Your task to perform on an android device: open wifi settings Image 0: 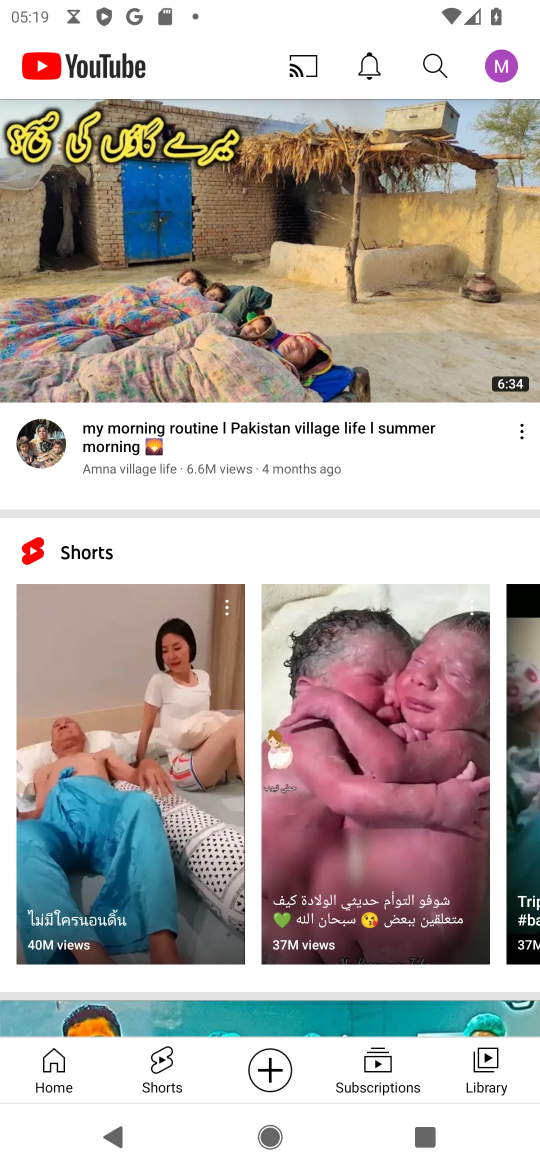
Step 0: press home button
Your task to perform on an android device: open wifi settings Image 1: 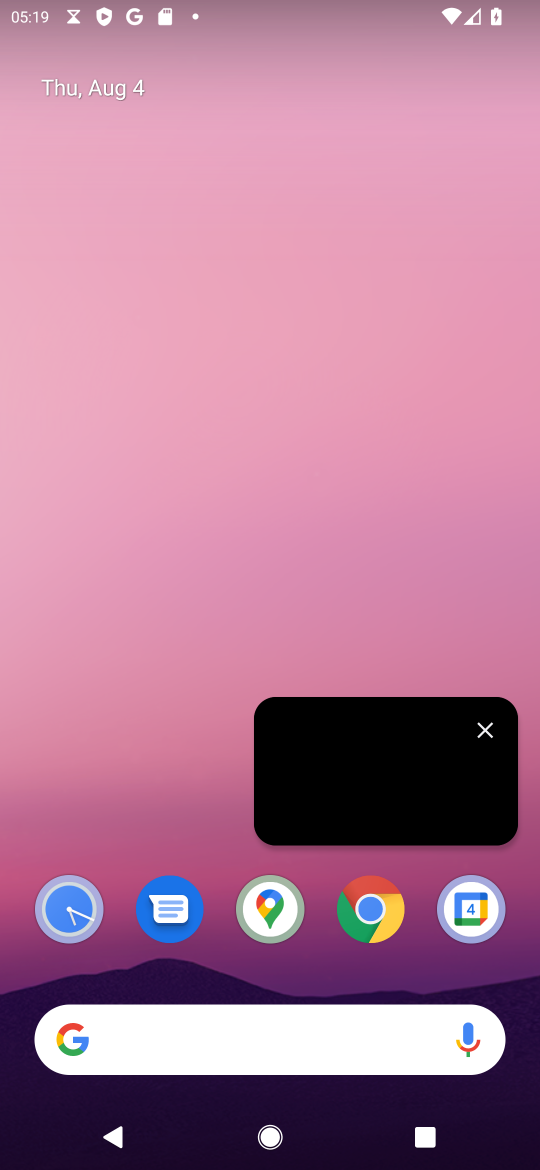
Step 1: click (484, 731)
Your task to perform on an android device: open wifi settings Image 2: 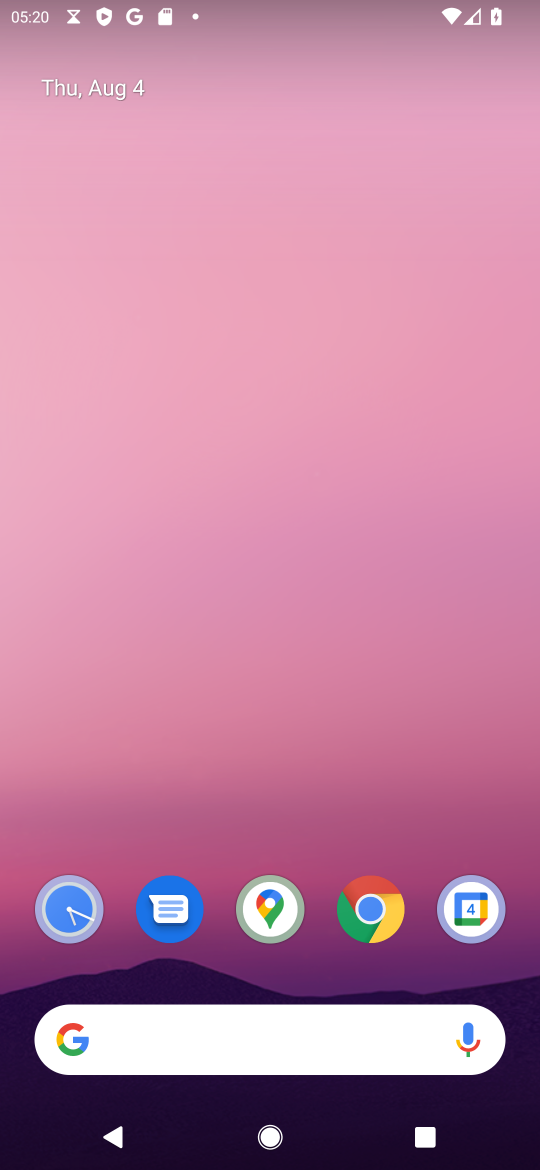
Step 2: drag from (206, 1052) to (494, 173)
Your task to perform on an android device: open wifi settings Image 3: 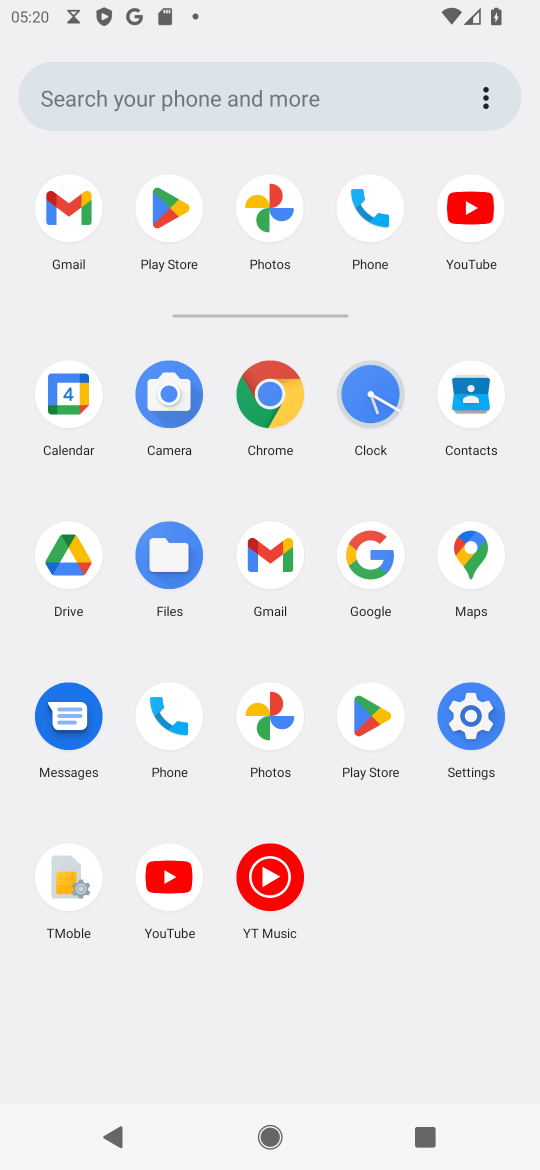
Step 3: click (467, 717)
Your task to perform on an android device: open wifi settings Image 4: 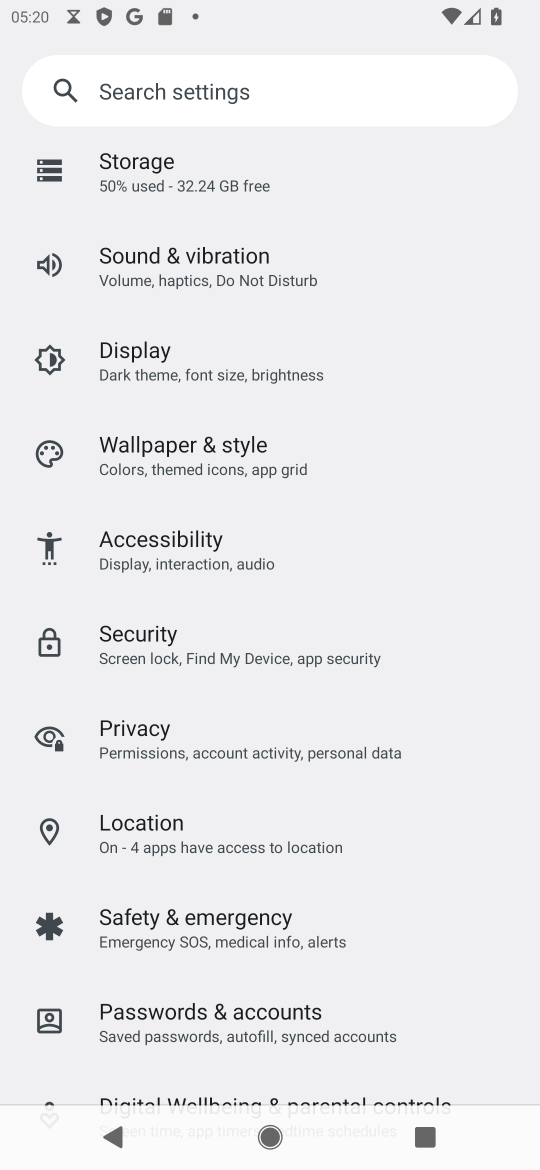
Step 4: drag from (399, 217) to (329, 941)
Your task to perform on an android device: open wifi settings Image 5: 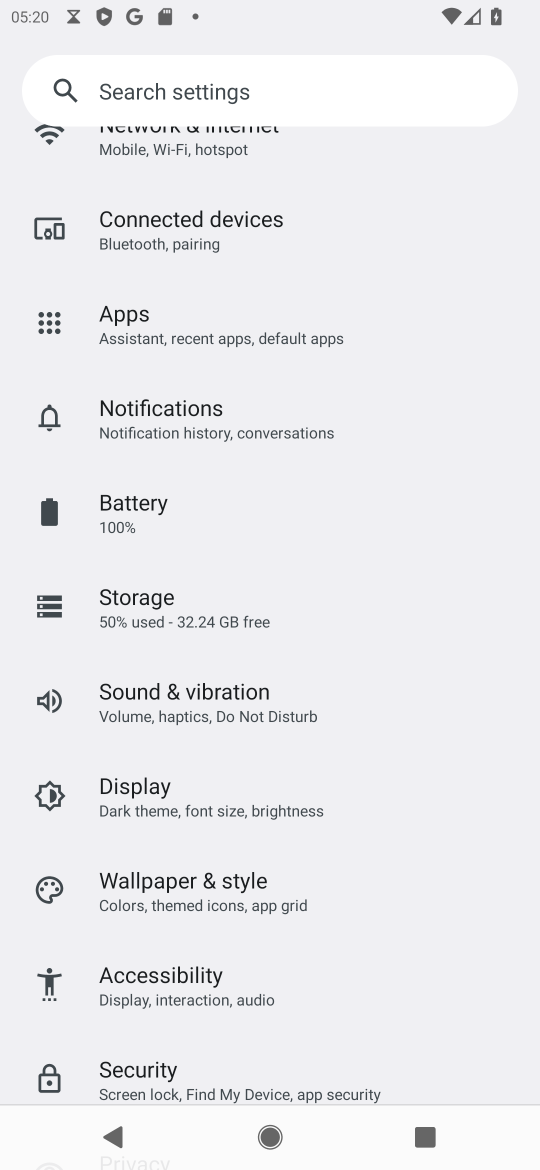
Step 5: drag from (443, 196) to (336, 1029)
Your task to perform on an android device: open wifi settings Image 6: 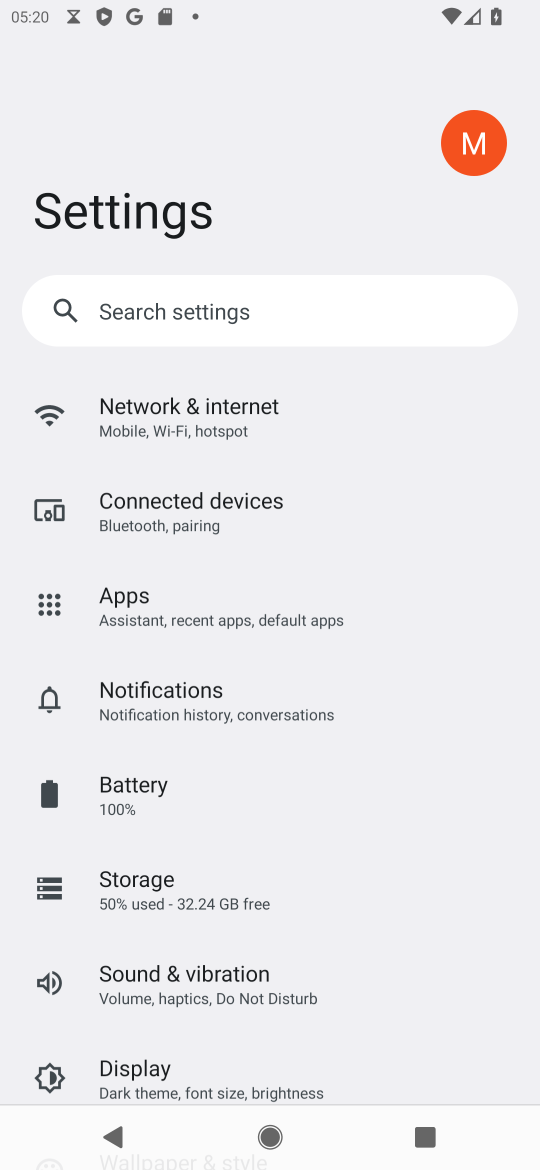
Step 6: click (213, 414)
Your task to perform on an android device: open wifi settings Image 7: 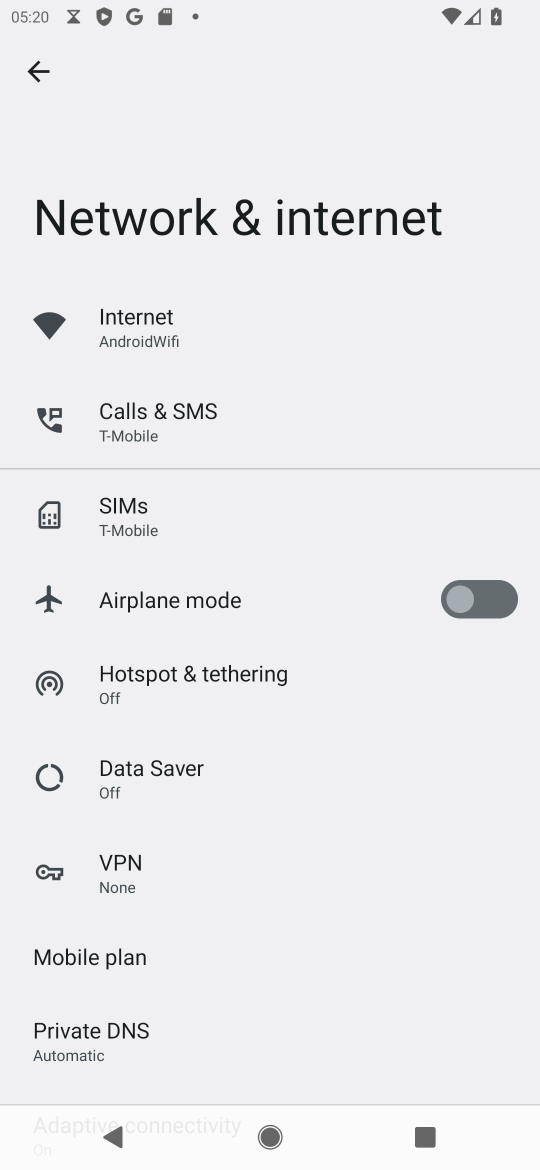
Step 7: click (158, 326)
Your task to perform on an android device: open wifi settings Image 8: 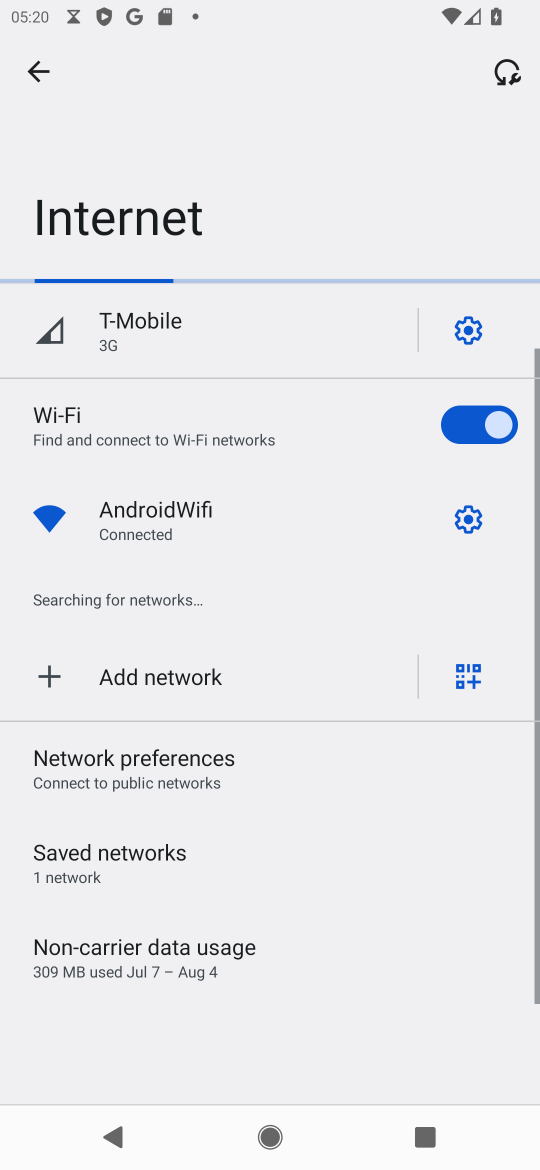
Step 8: click (468, 516)
Your task to perform on an android device: open wifi settings Image 9: 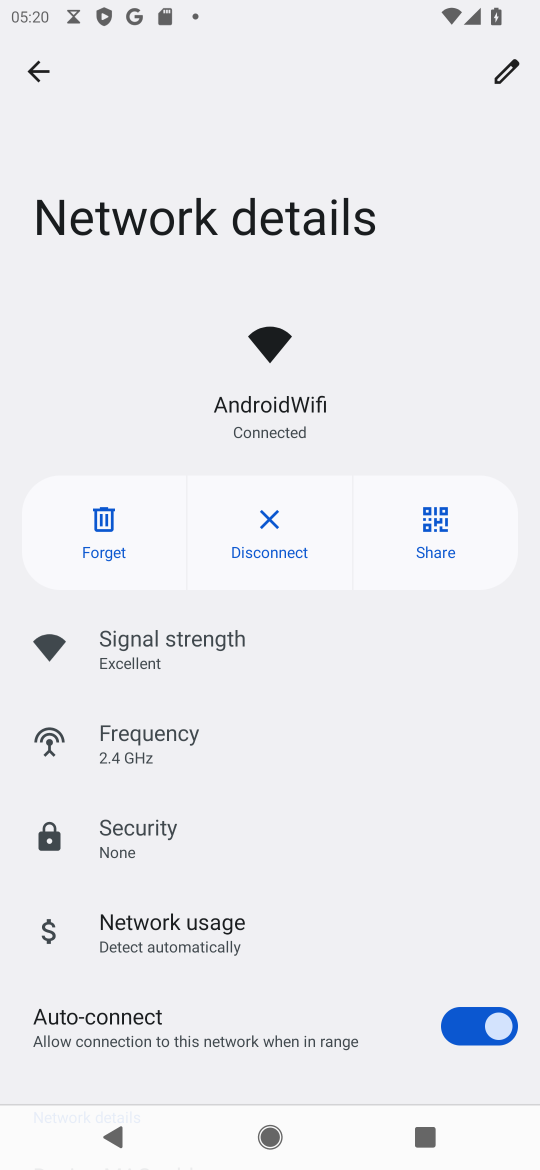
Step 9: task complete